Your task to perform on an android device: Open Amazon Image 0: 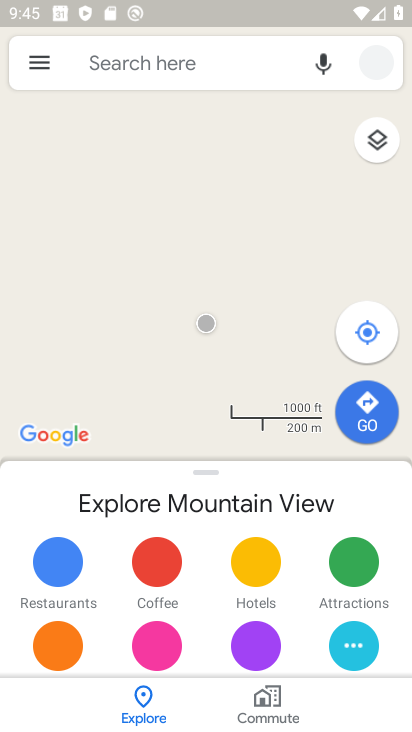
Step 0: press home button
Your task to perform on an android device: Open Amazon Image 1: 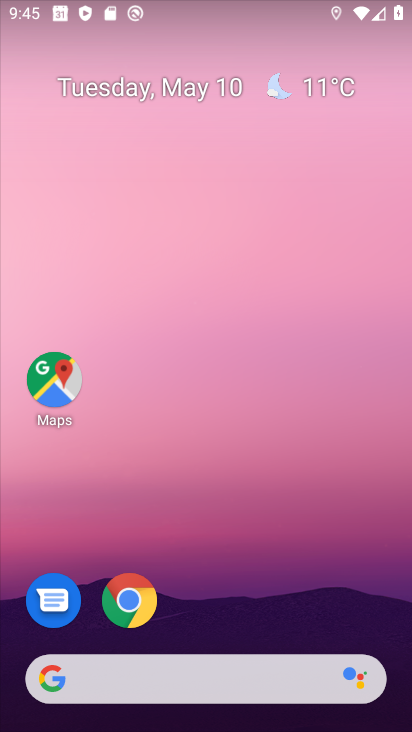
Step 1: drag from (297, 600) to (298, 116)
Your task to perform on an android device: Open Amazon Image 2: 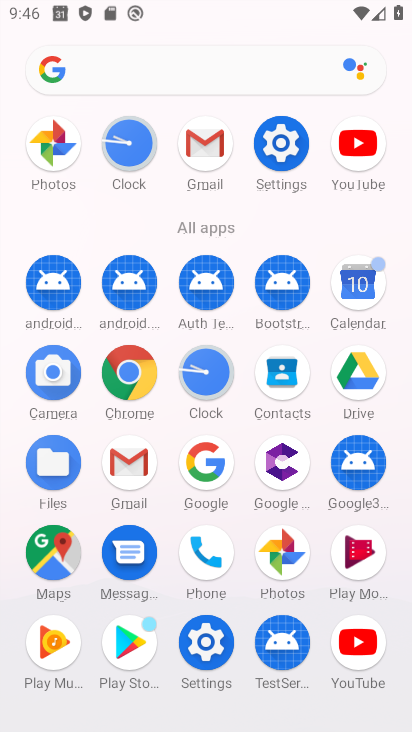
Step 2: click (130, 395)
Your task to perform on an android device: Open Amazon Image 3: 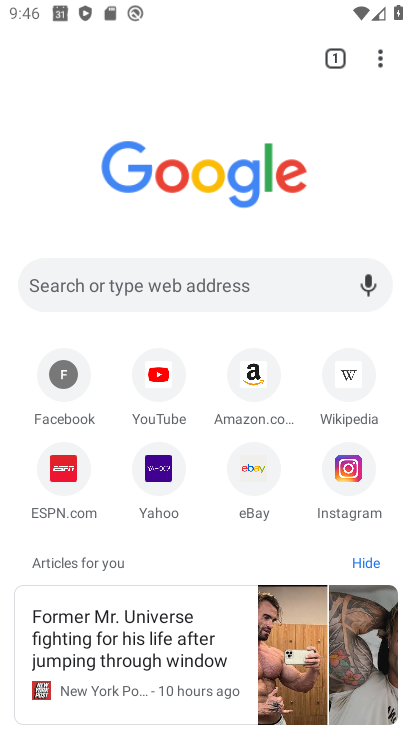
Step 3: click (266, 402)
Your task to perform on an android device: Open Amazon Image 4: 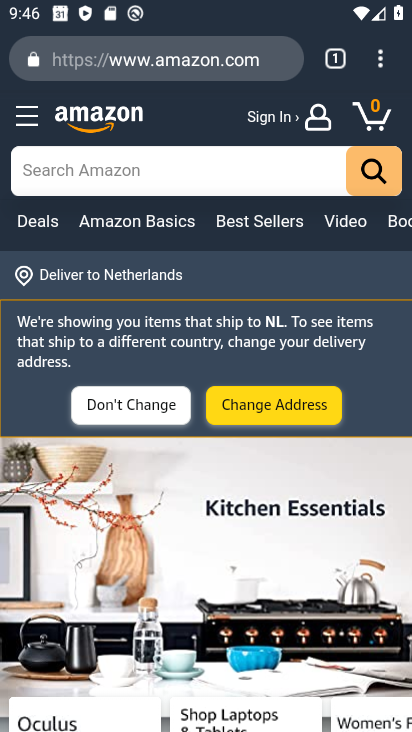
Step 4: task complete